Your task to perform on an android device: When is my next meeting? Image 0: 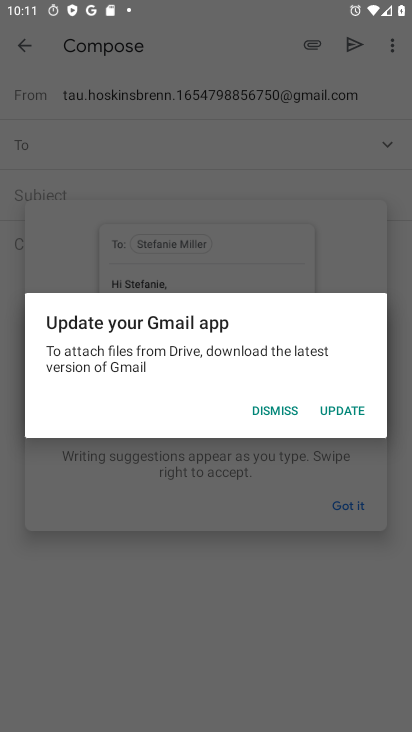
Step 0: press home button
Your task to perform on an android device: When is my next meeting? Image 1: 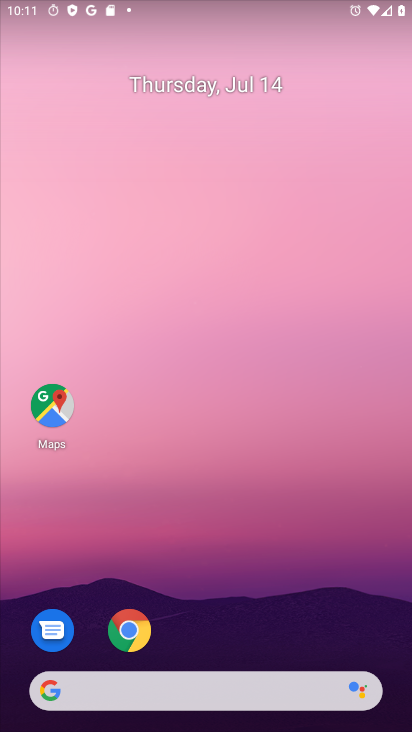
Step 1: drag from (20, 713) to (276, 199)
Your task to perform on an android device: When is my next meeting? Image 2: 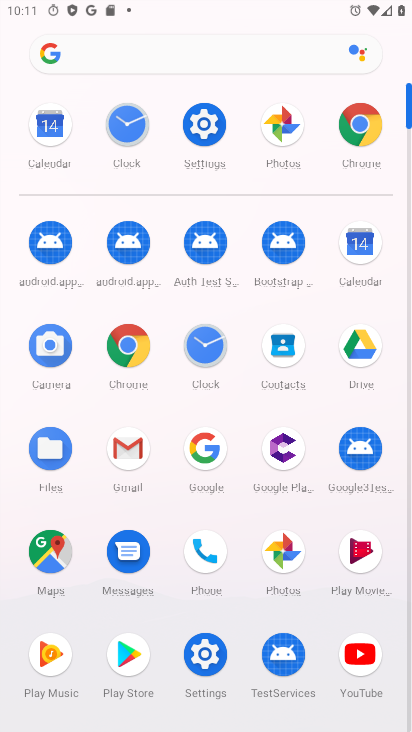
Step 2: click (374, 225)
Your task to perform on an android device: When is my next meeting? Image 3: 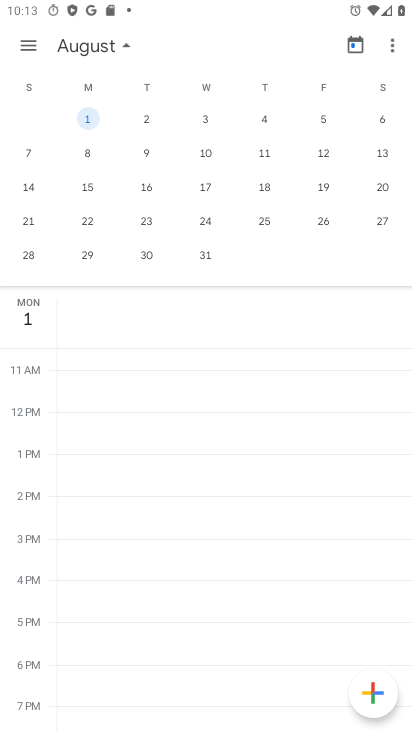
Step 3: task complete